Your task to perform on an android device: Open calendar and show me the first week of next month Image 0: 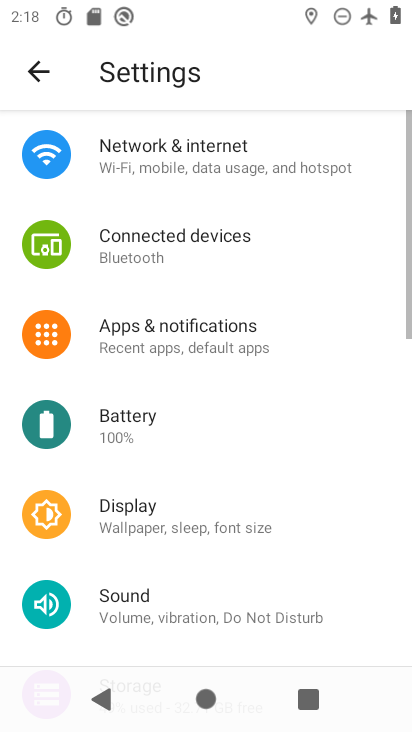
Step 0: press home button
Your task to perform on an android device: Open calendar and show me the first week of next month Image 1: 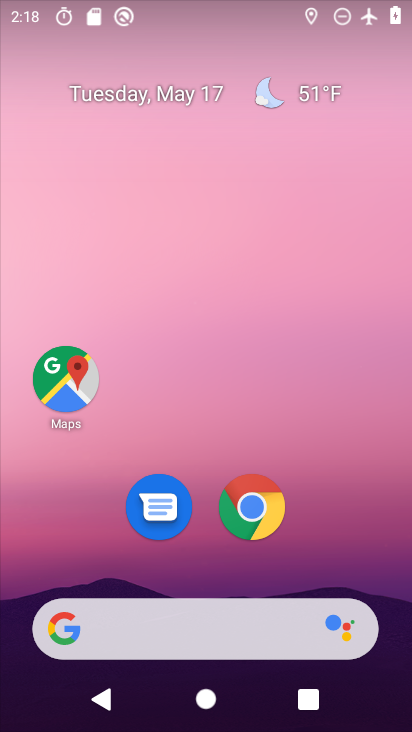
Step 1: drag from (208, 554) to (303, 110)
Your task to perform on an android device: Open calendar and show me the first week of next month Image 2: 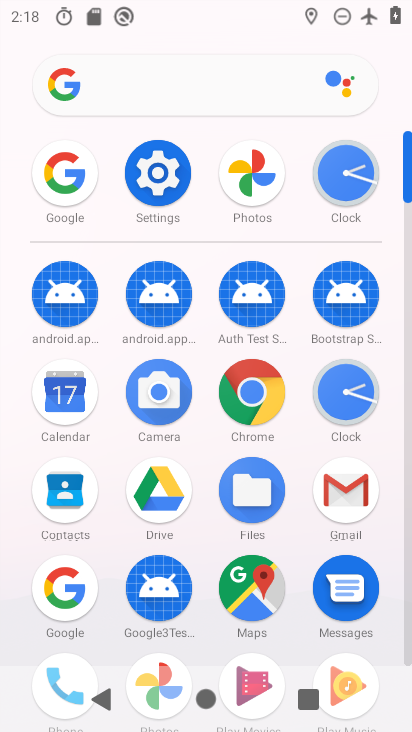
Step 2: click (67, 395)
Your task to perform on an android device: Open calendar and show me the first week of next month Image 3: 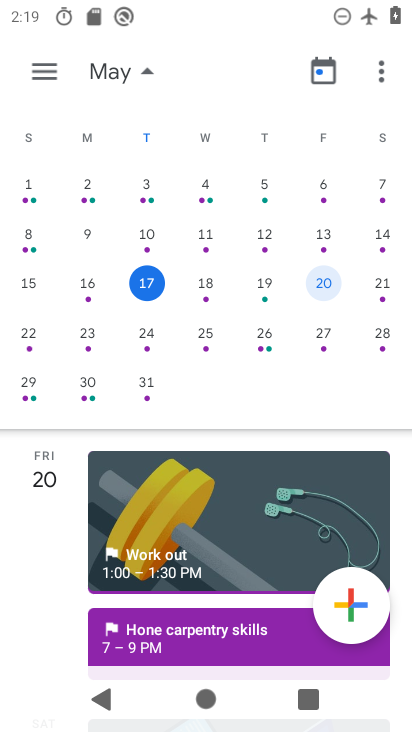
Step 3: drag from (359, 385) to (7, 386)
Your task to perform on an android device: Open calendar and show me the first week of next month Image 4: 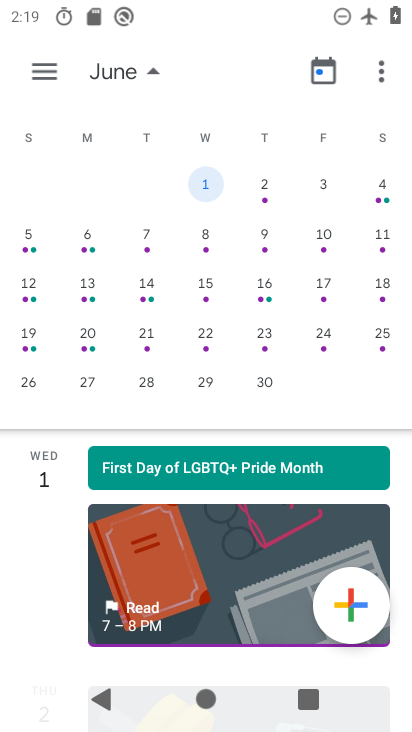
Step 4: click (312, 182)
Your task to perform on an android device: Open calendar and show me the first week of next month Image 5: 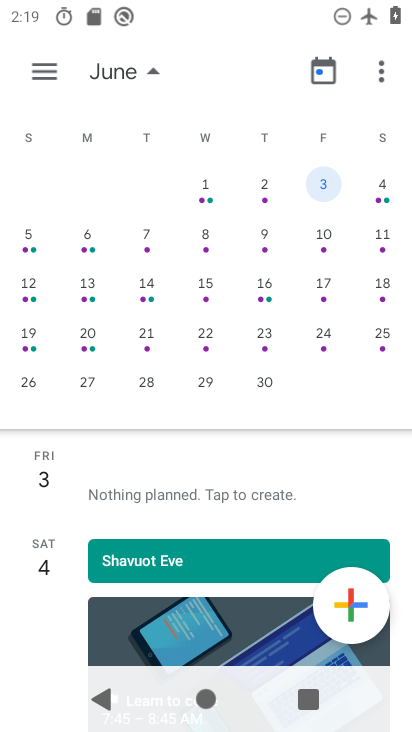
Step 5: task complete